Your task to perform on an android device: Open privacy settings Image 0: 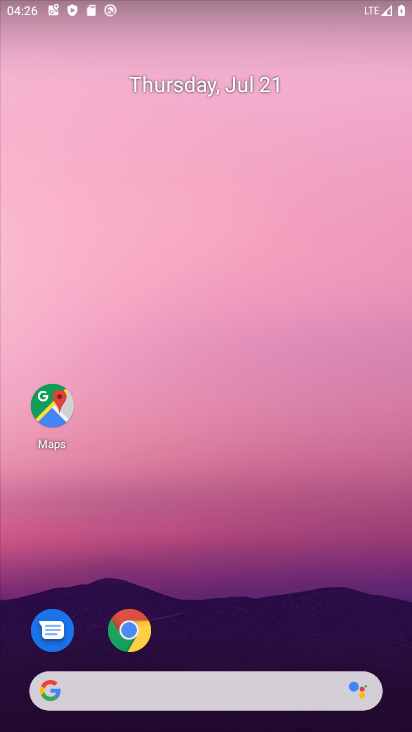
Step 0: drag from (183, 654) to (200, 95)
Your task to perform on an android device: Open privacy settings Image 1: 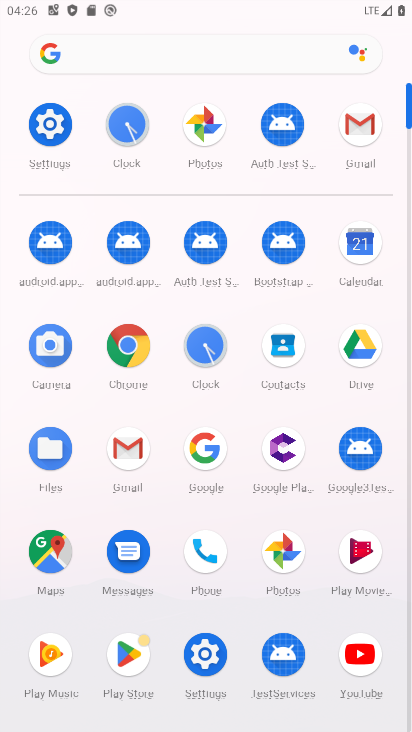
Step 1: click (56, 137)
Your task to perform on an android device: Open privacy settings Image 2: 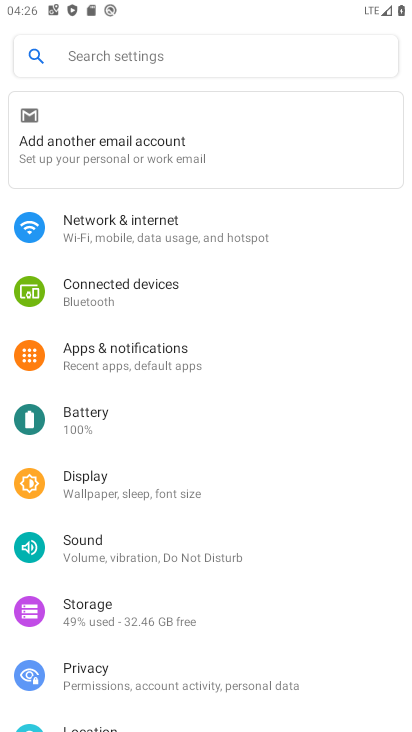
Step 2: click (58, 684)
Your task to perform on an android device: Open privacy settings Image 3: 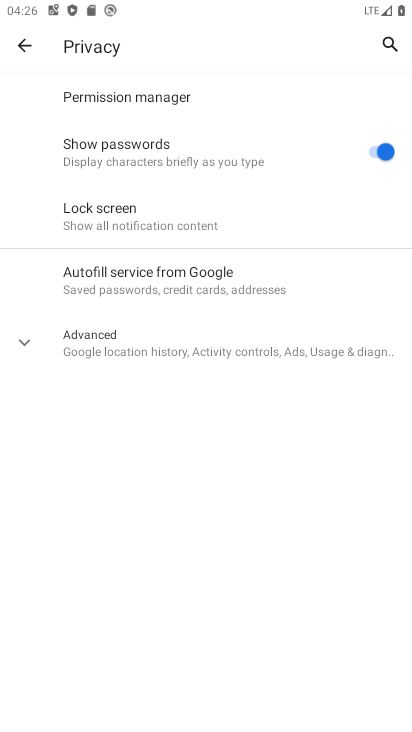
Step 3: task complete